Your task to perform on an android device: What's the weather going to be tomorrow? Image 0: 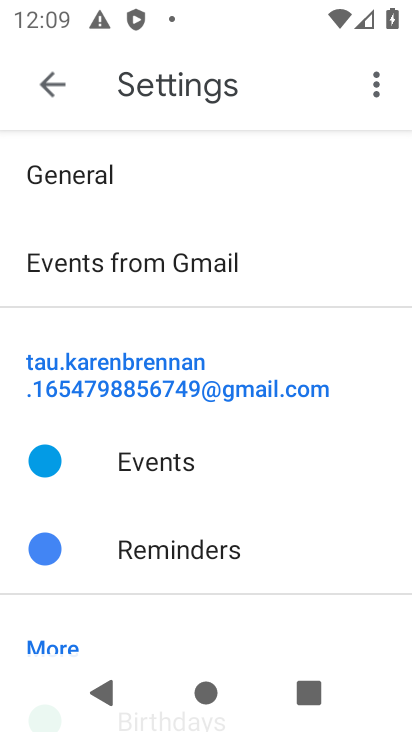
Step 0: press home button
Your task to perform on an android device: What's the weather going to be tomorrow? Image 1: 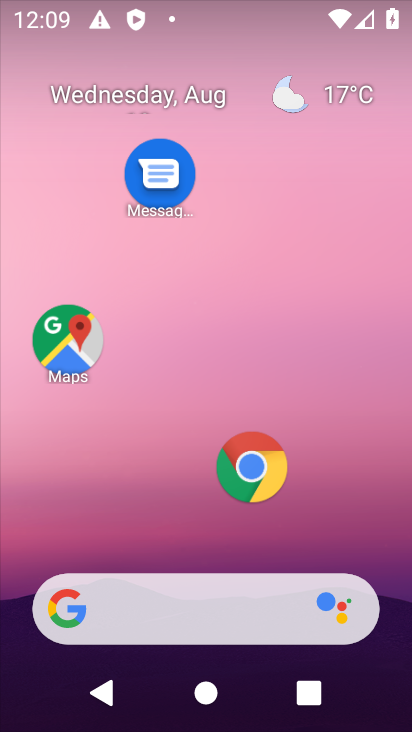
Step 1: click (200, 607)
Your task to perform on an android device: What's the weather going to be tomorrow? Image 2: 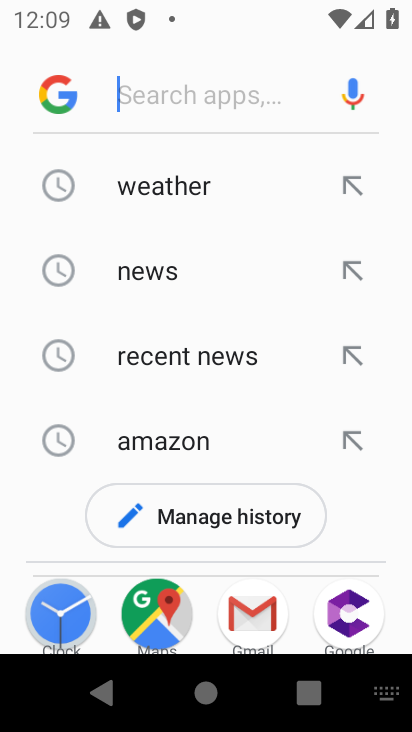
Step 2: click (200, 197)
Your task to perform on an android device: What's the weather going to be tomorrow? Image 3: 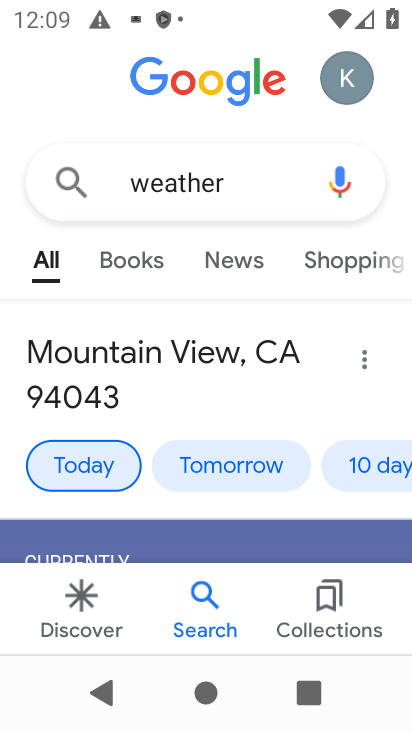
Step 3: click (171, 482)
Your task to perform on an android device: What's the weather going to be tomorrow? Image 4: 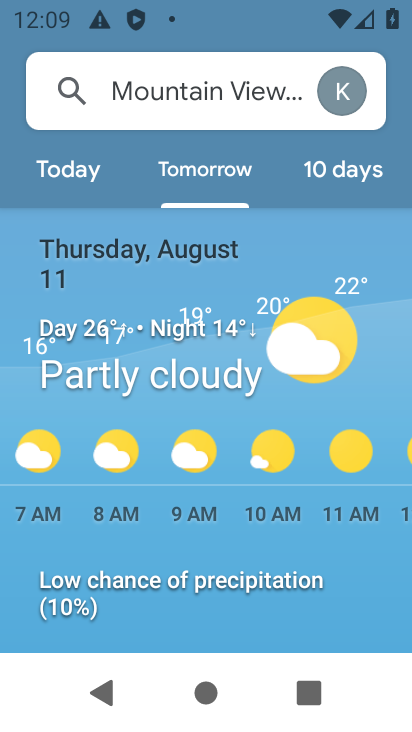
Step 4: task complete